Your task to perform on an android device: Open Amazon Image 0: 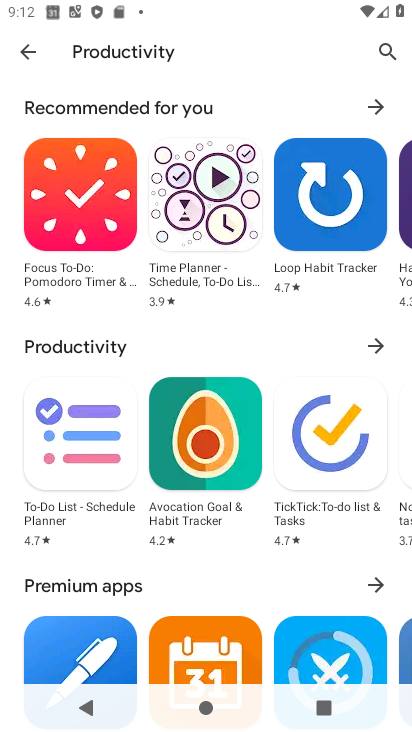
Step 0: press home button
Your task to perform on an android device: Open Amazon Image 1: 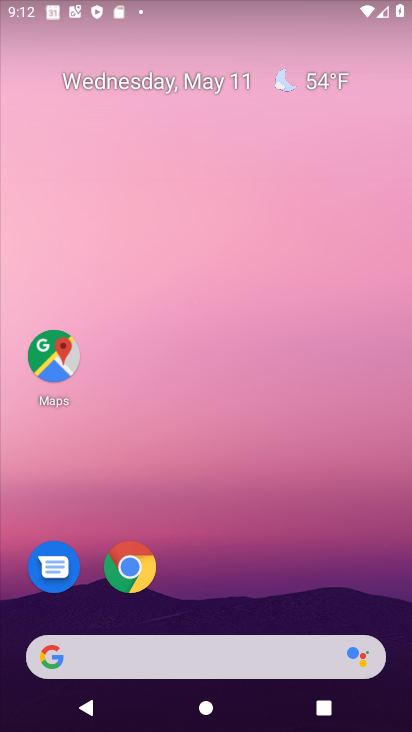
Step 1: click (133, 581)
Your task to perform on an android device: Open Amazon Image 2: 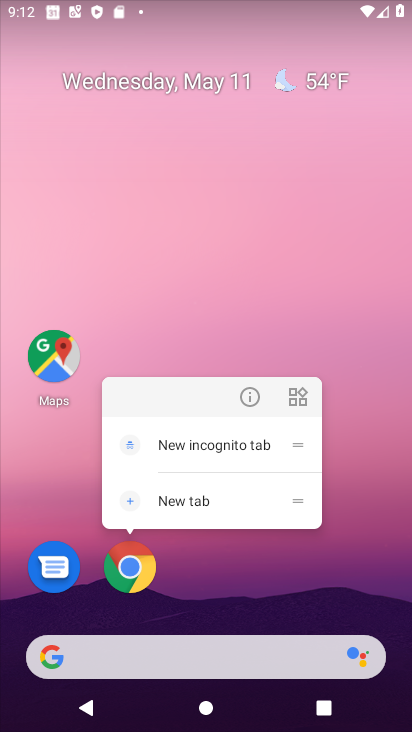
Step 2: click (133, 580)
Your task to perform on an android device: Open Amazon Image 3: 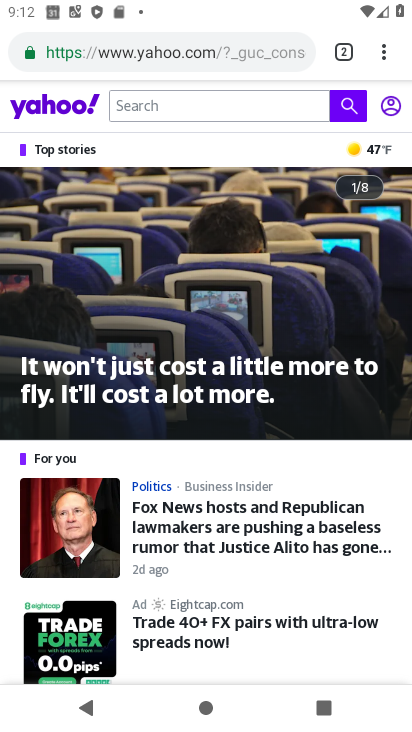
Step 3: click (378, 55)
Your task to perform on an android device: Open Amazon Image 4: 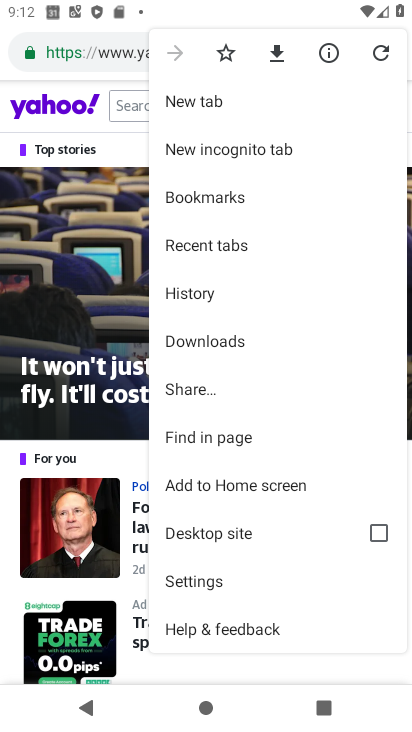
Step 4: click (214, 83)
Your task to perform on an android device: Open Amazon Image 5: 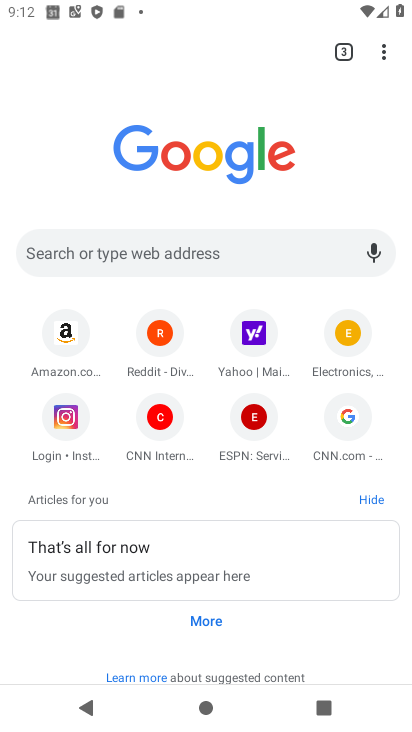
Step 5: click (74, 329)
Your task to perform on an android device: Open Amazon Image 6: 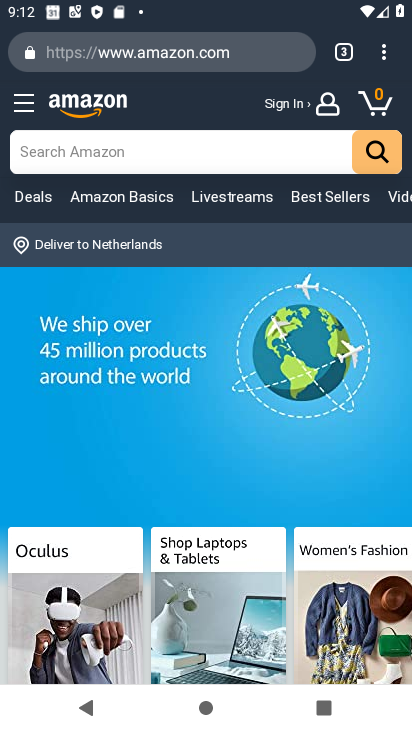
Step 6: task complete